Your task to perform on an android device: Open settings Image 0: 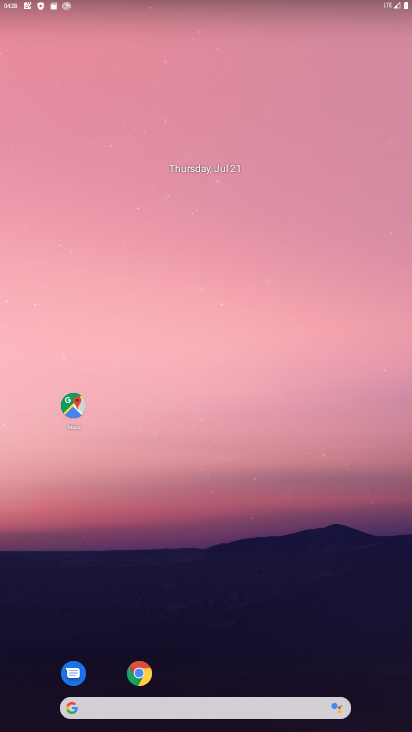
Step 0: drag from (299, 578) to (318, 0)
Your task to perform on an android device: Open settings Image 1: 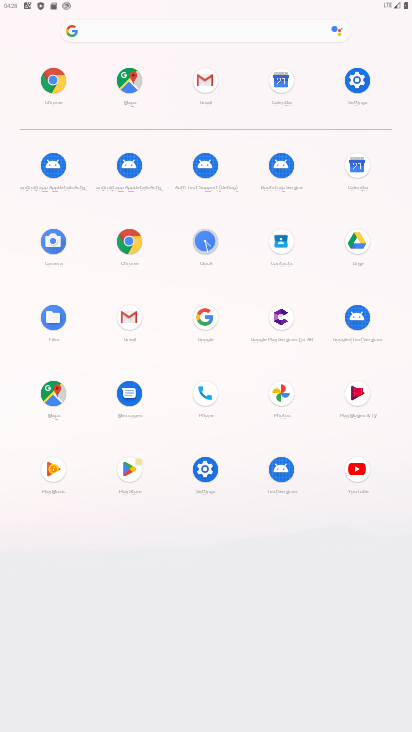
Step 1: click (354, 77)
Your task to perform on an android device: Open settings Image 2: 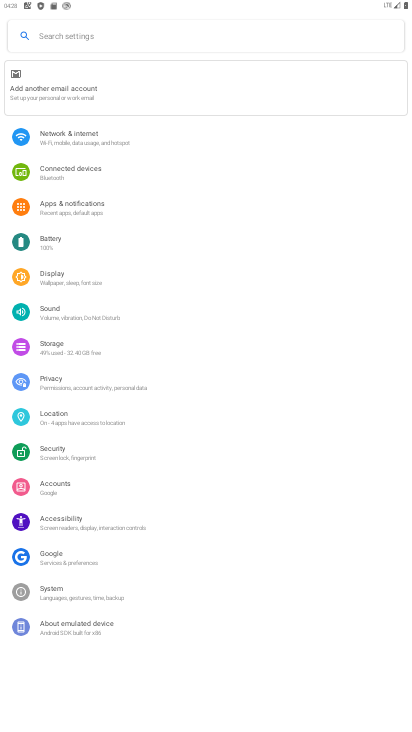
Step 2: task complete